Your task to perform on an android device: open chrome and create a bookmark for the current page Image 0: 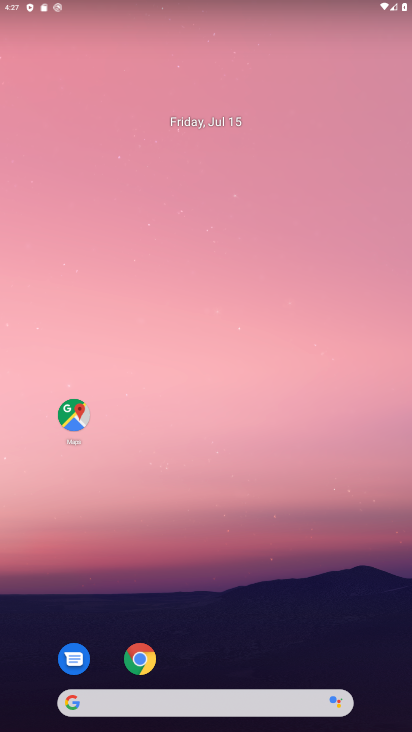
Step 0: click (148, 655)
Your task to perform on an android device: open chrome and create a bookmark for the current page Image 1: 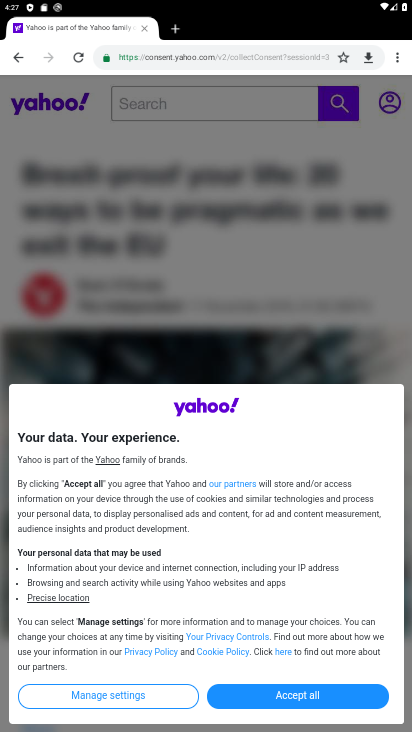
Step 1: click (143, 658)
Your task to perform on an android device: open chrome and create a bookmark for the current page Image 2: 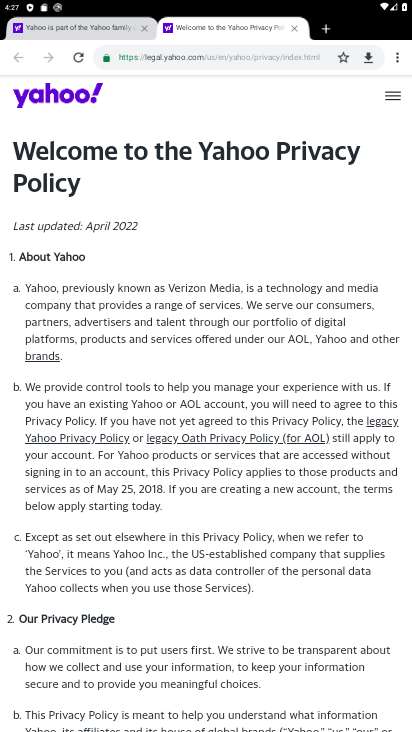
Step 2: click (344, 60)
Your task to perform on an android device: open chrome and create a bookmark for the current page Image 3: 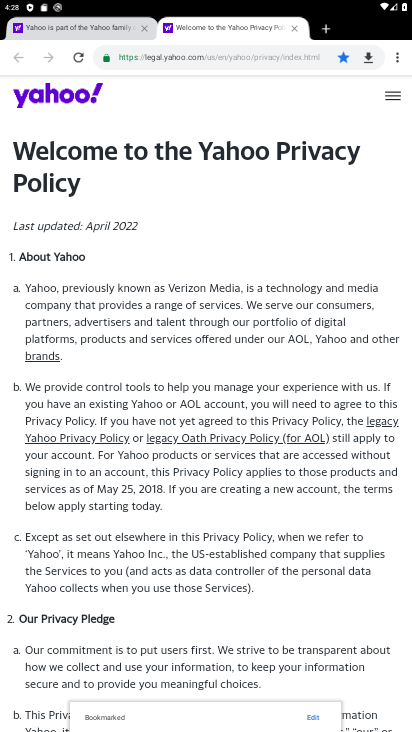
Step 3: task complete